Your task to perform on an android device: manage bookmarks in the chrome app Image 0: 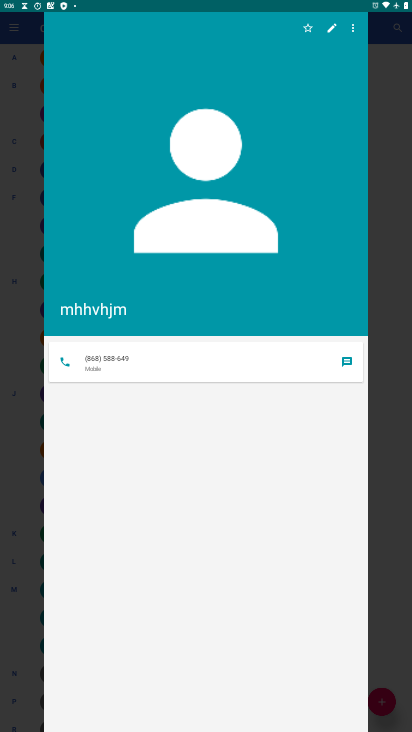
Step 0: press home button
Your task to perform on an android device: manage bookmarks in the chrome app Image 1: 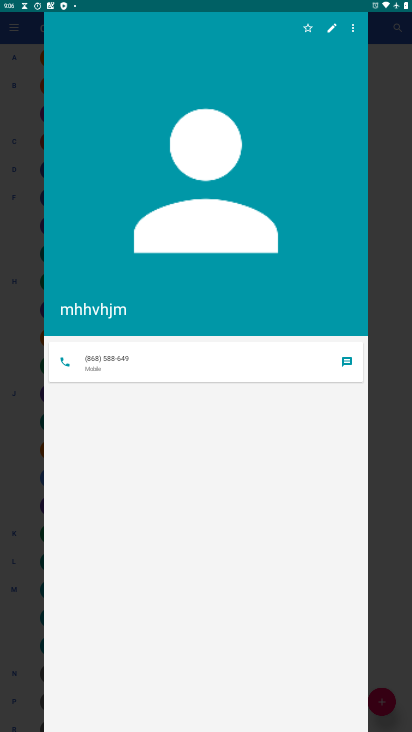
Step 1: press home button
Your task to perform on an android device: manage bookmarks in the chrome app Image 2: 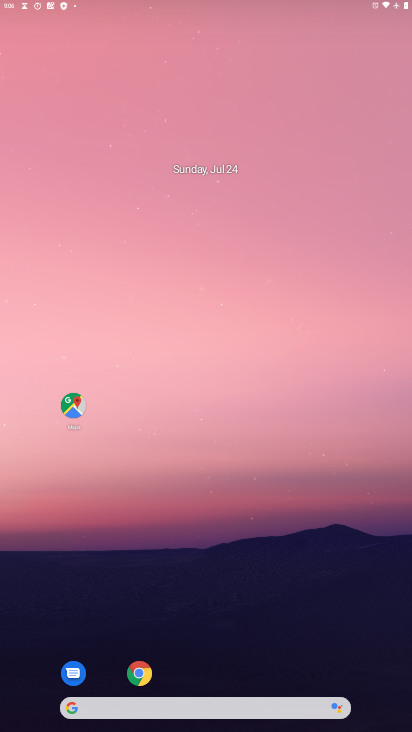
Step 2: drag from (197, 581) to (257, 34)
Your task to perform on an android device: manage bookmarks in the chrome app Image 3: 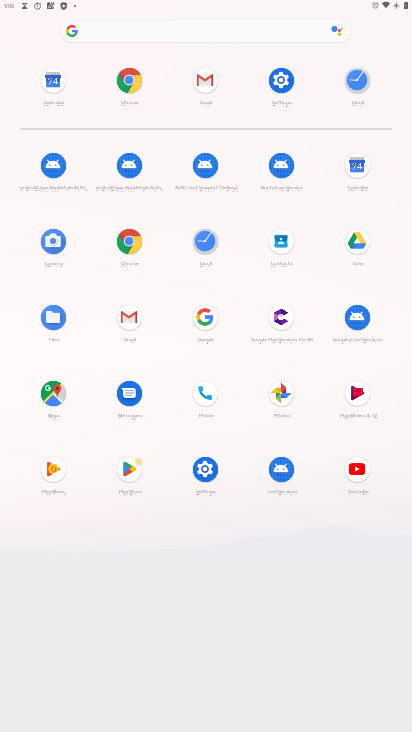
Step 3: click (125, 239)
Your task to perform on an android device: manage bookmarks in the chrome app Image 4: 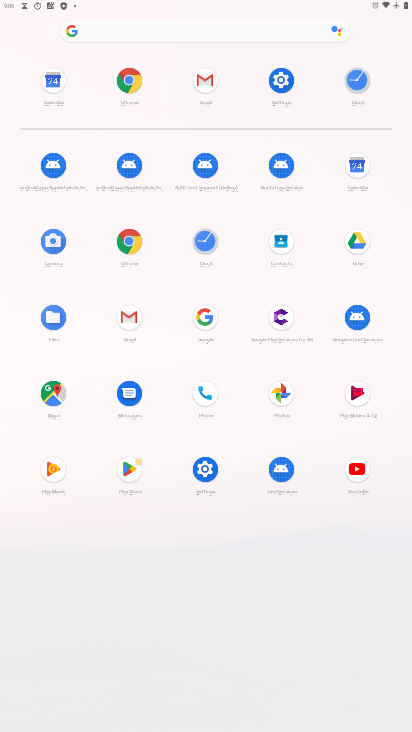
Step 4: click (127, 237)
Your task to perform on an android device: manage bookmarks in the chrome app Image 5: 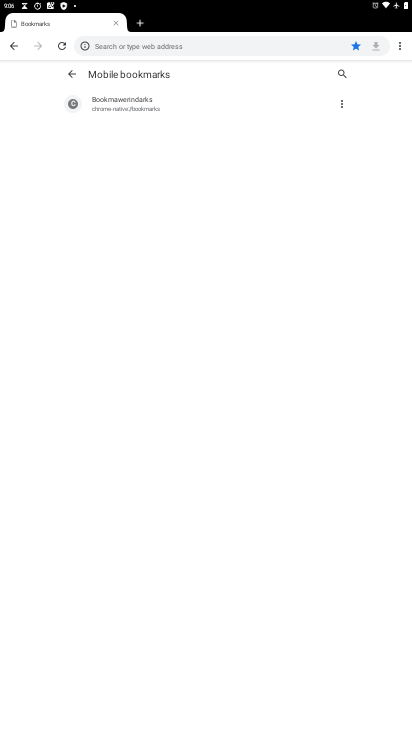
Step 5: drag from (402, 42) to (311, 97)
Your task to perform on an android device: manage bookmarks in the chrome app Image 6: 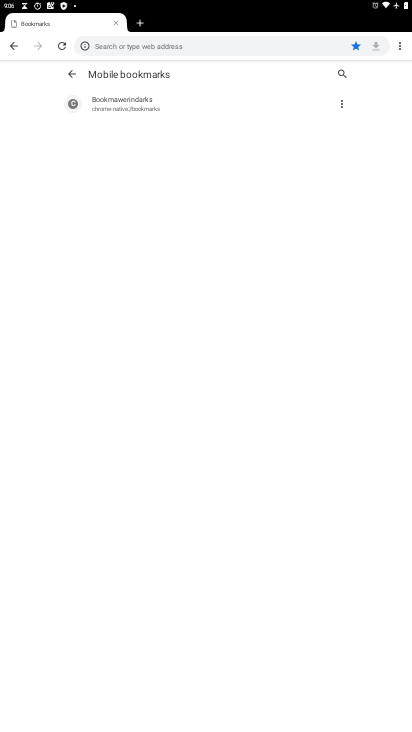
Step 6: drag from (253, 533) to (259, 116)
Your task to perform on an android device: manage bookmarks in the chrome app Image 7: 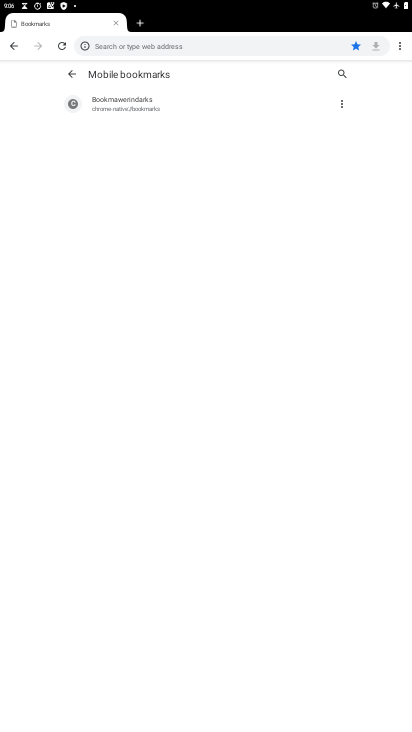
Step 7: click (232, 102)
Your task to perform on an android device: manage bookmarks in the chrome app Image 8: 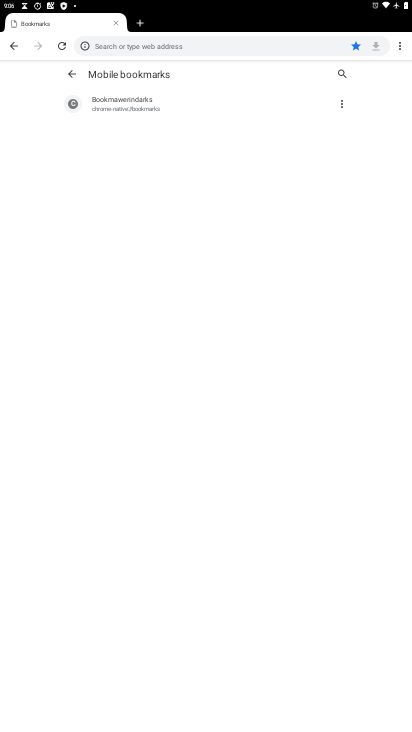
Step 8: drag from (150, 347) to (192, 233)
Your task to perform on an android device: manage bookmarks in the chrome app Image 9: 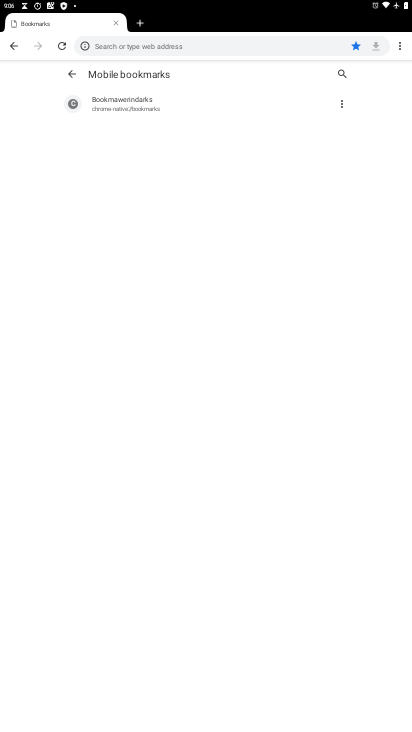
Step 9: click (89, 107)
Your task to perform on an android device: manage bookmarks in the chrome app Image 10: 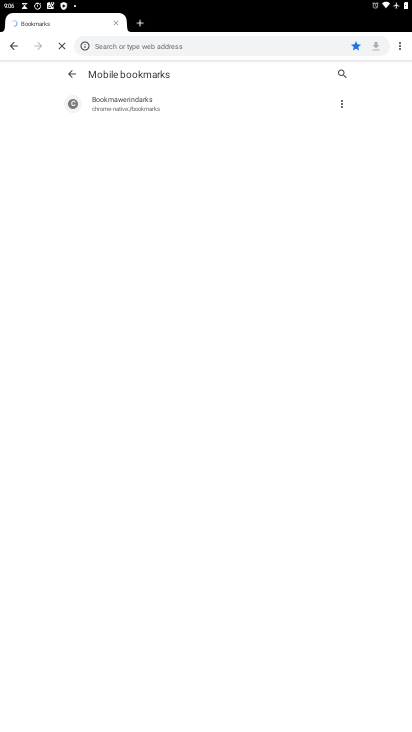
Step 10: task complete